Your task to perform on an android device: open app "Google Chrome" Image 0: 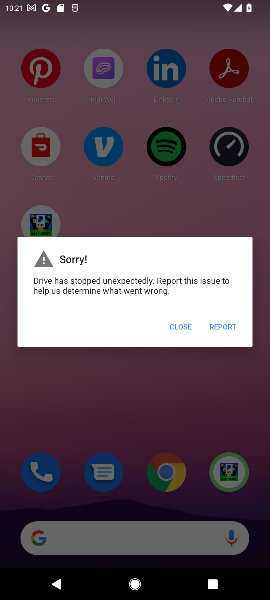
Step 0: press home button
Your task to perform on an android device: open app "Google Chrome" Image 1: 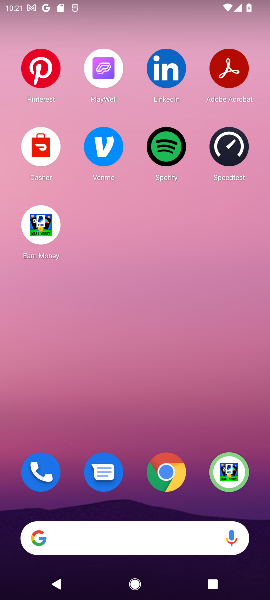
Step 1: press home button
Your task to perform on an android device: open app "Google Chrome" Image 2: 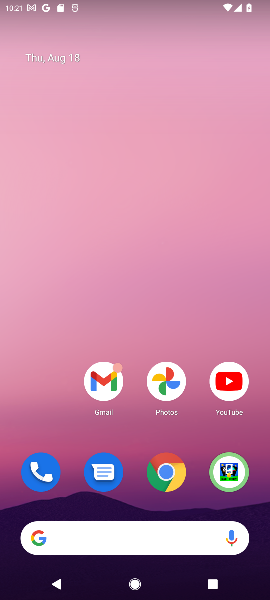
Step 2: click (178, 469)
Your task to perform on an android device: open app "Google Chrome" Image 3: 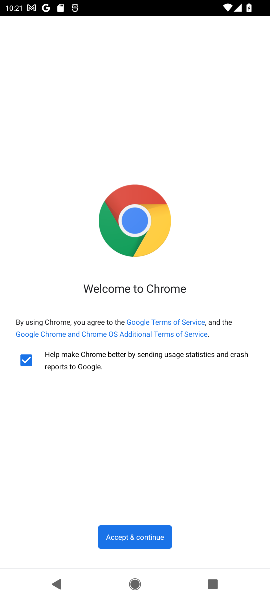
Step 3: click (144, 536)
Your task to perform on an android device: open app "Google Chrome" Image 4: 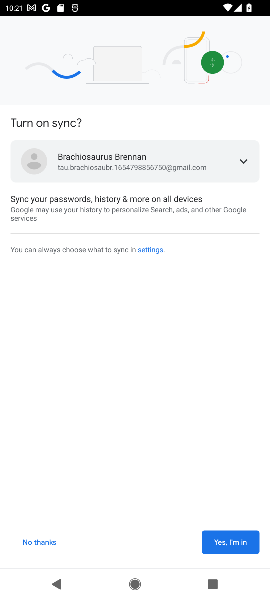
Step 4: click (232, 541)
Your task to perform on an android device: open app "Google Chrome" Image 5: 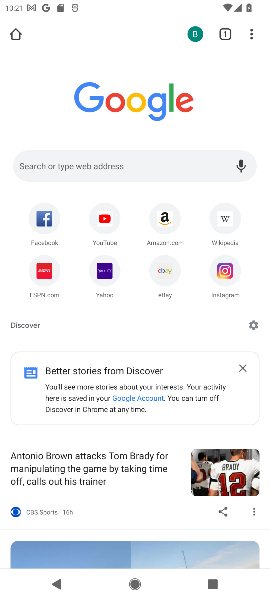
Step 5: task complete